Your task to perform on an android device: Empty the shopping cart on walmart. Image 0: 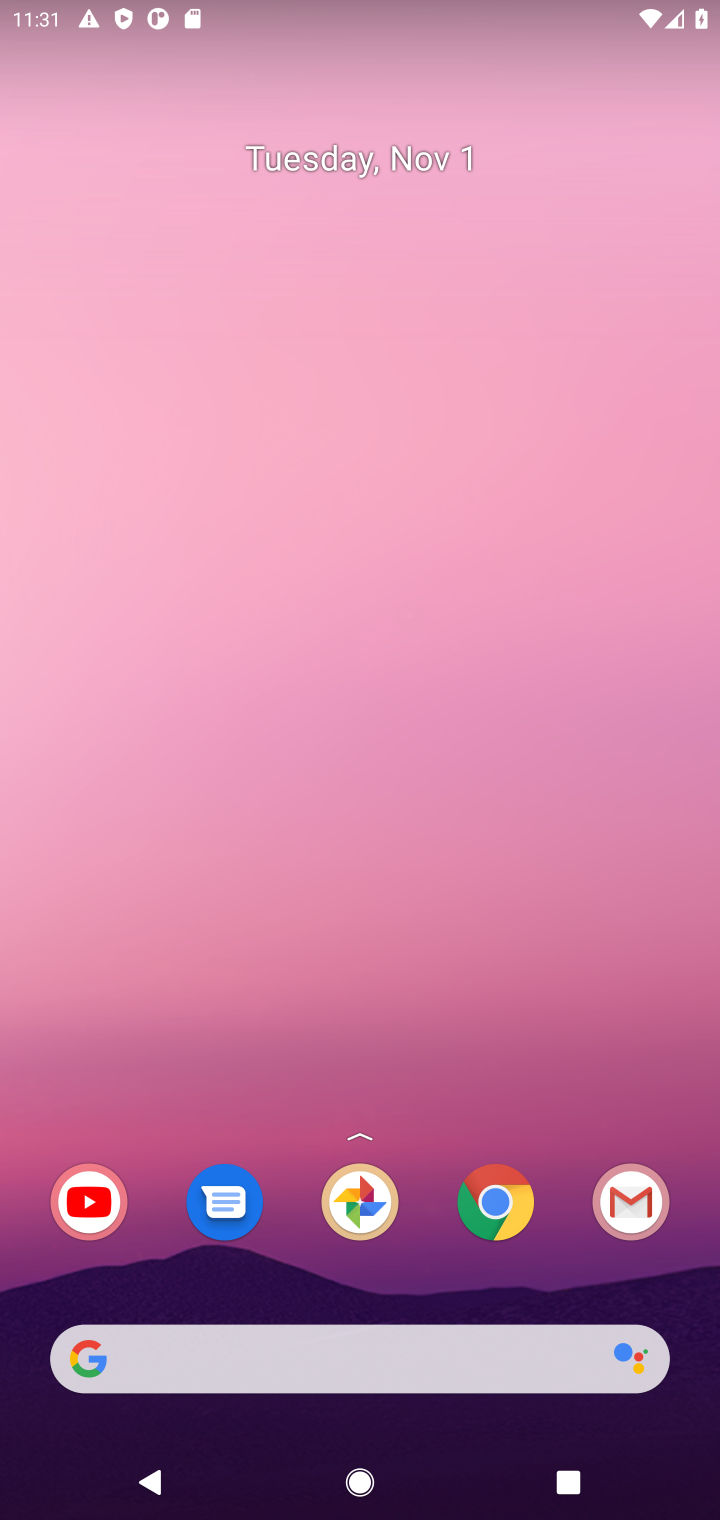
Step 0: click (496, 1190)
Your task to perform on an android device: Empty the shopping cart on walmart. Image 1: 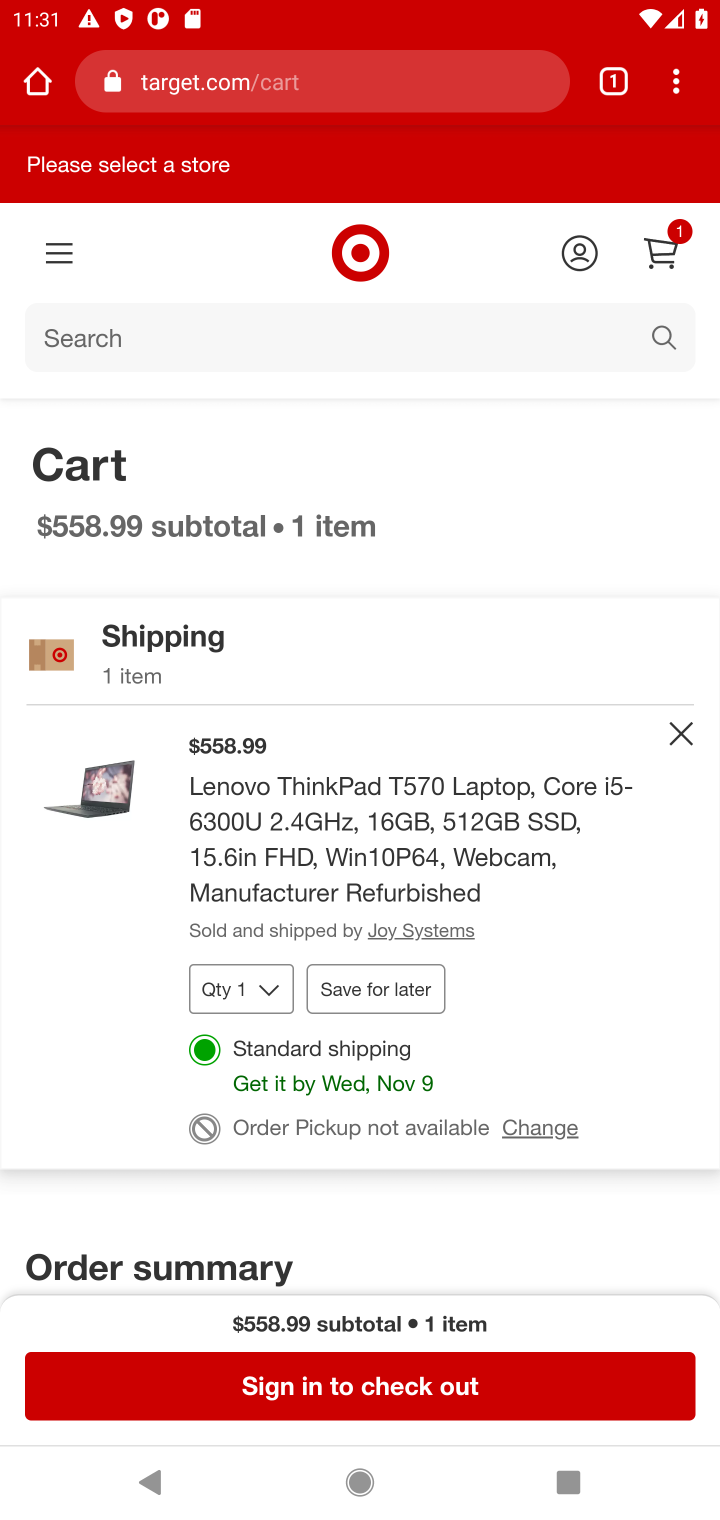
Step 1: click (377, 93)
Your task to perform on an android device: Empty the shopping cart on walmart. Image 2: 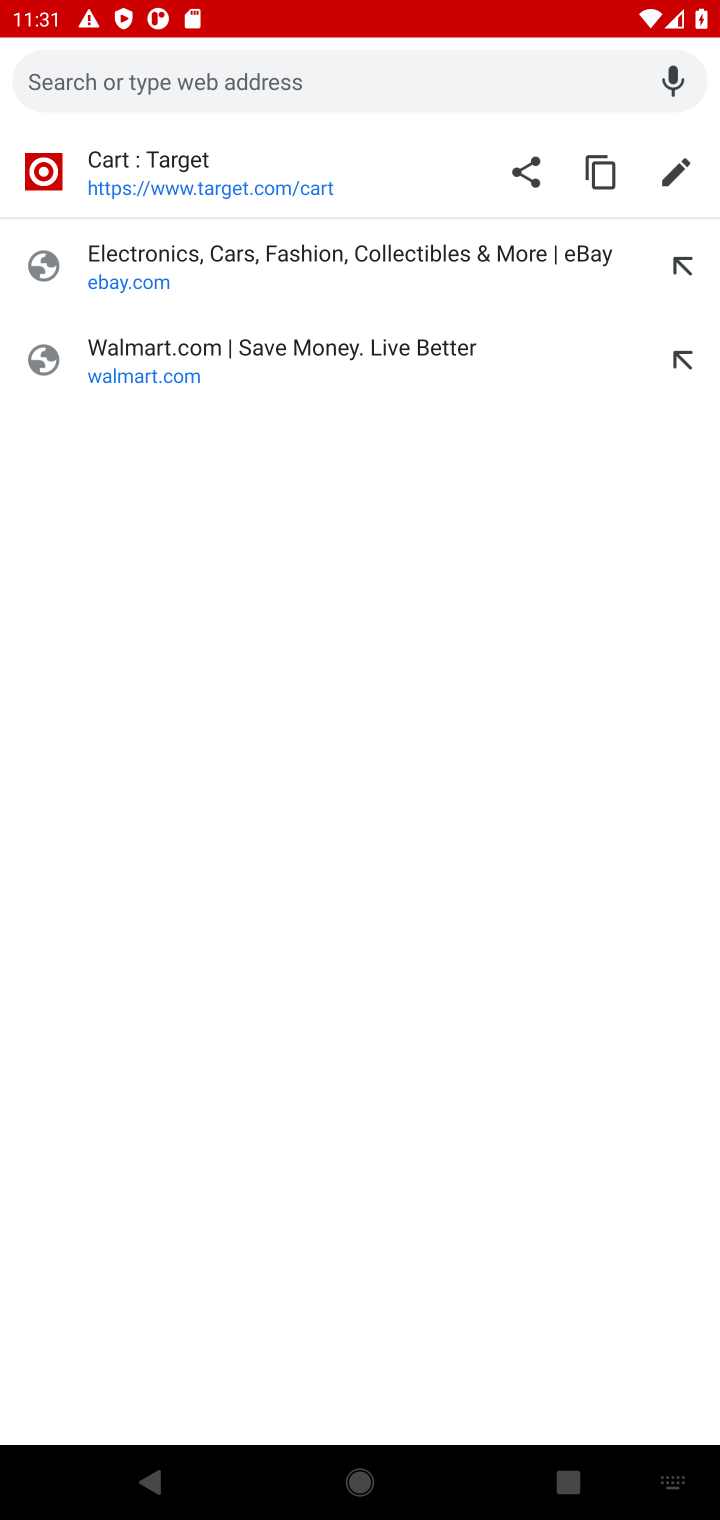
Step 2: type "walmart"
Your task to perform on an android device: Empty the shopping cart on walmart. Image 3: 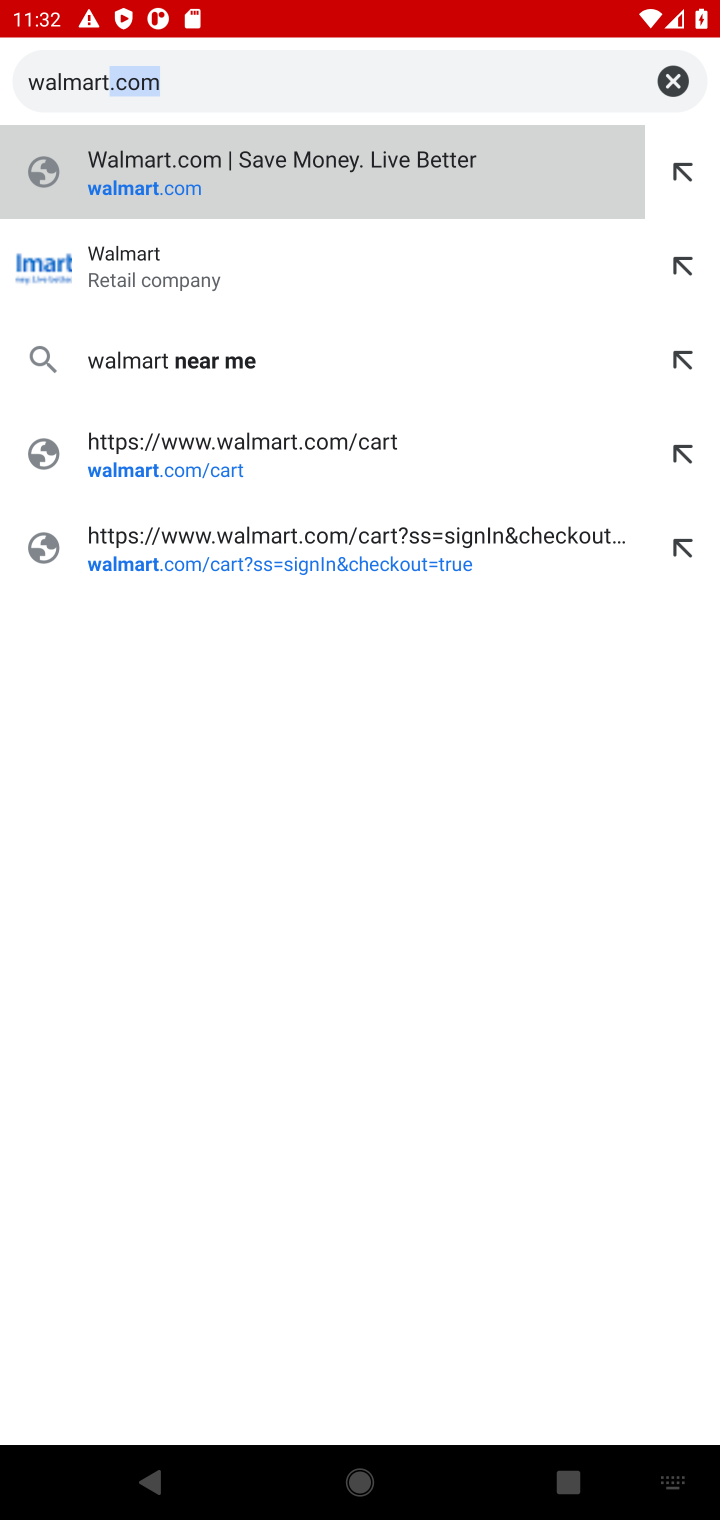
Step 3: press enter
Your task to perform on an android device: Empty the shopping cart on walmart. Image 4: 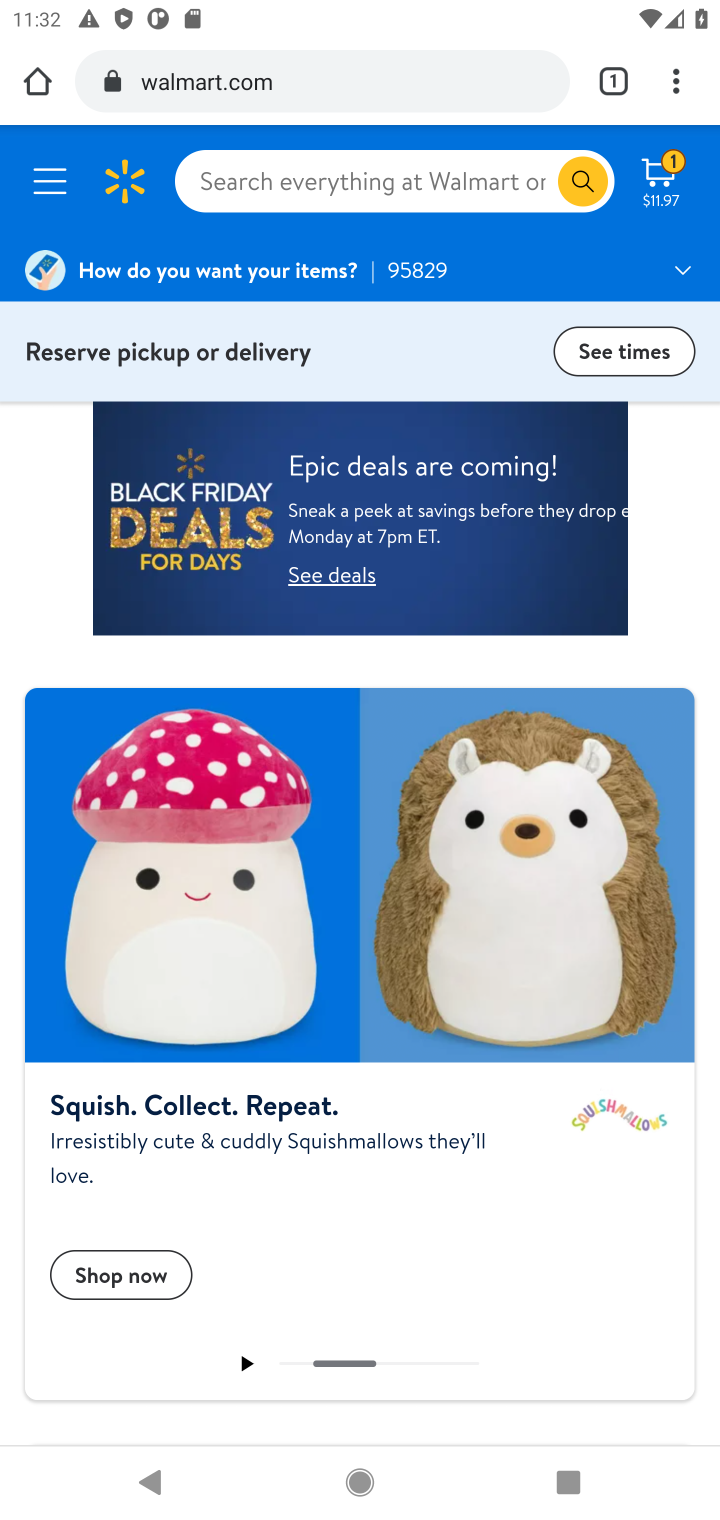
Step 4: click (669, 158)
Your task to perform on an android device: Empty the shopping cart on walmart. Image 5: 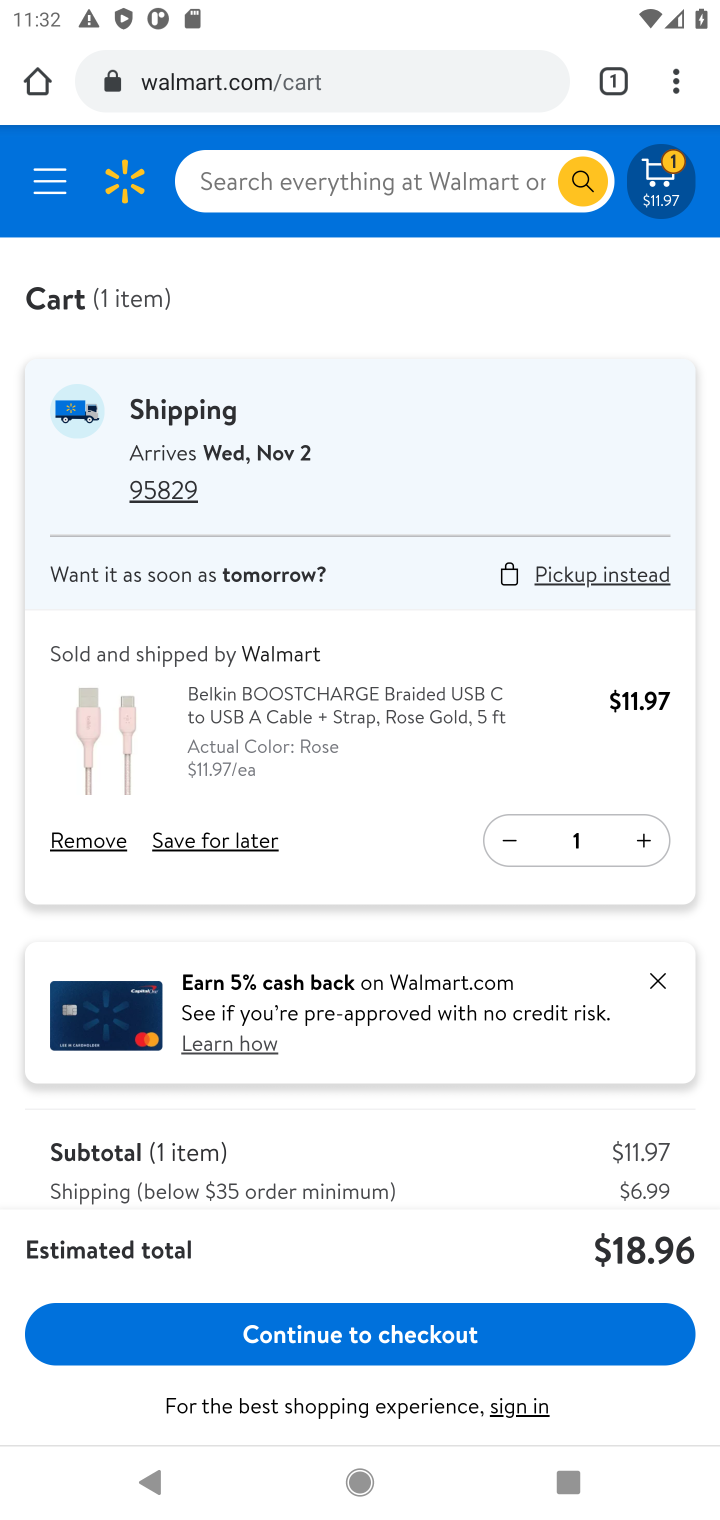
Step 5: click (90, 849)
Your task to perform on an android device: Empty the shopping cart on walmart. Image 6: 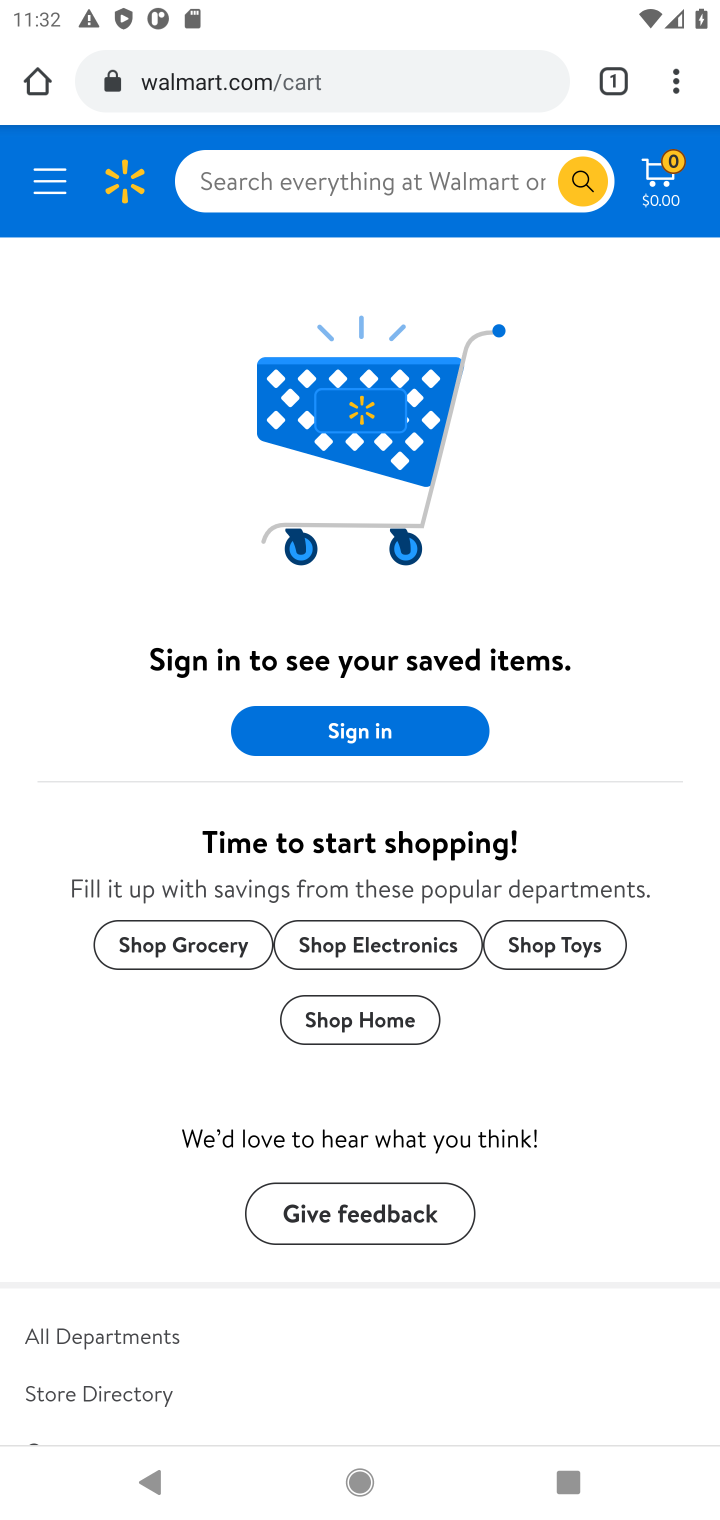
Step 6: task complete